Your task to perform on an android device: toggle sleep mode Image 0: 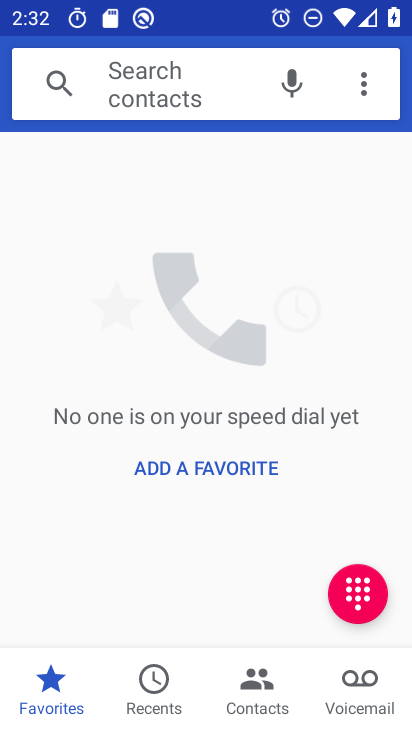
Step 0: press home button
Your task to perform on an android device: toggle sleep mode Image 1: 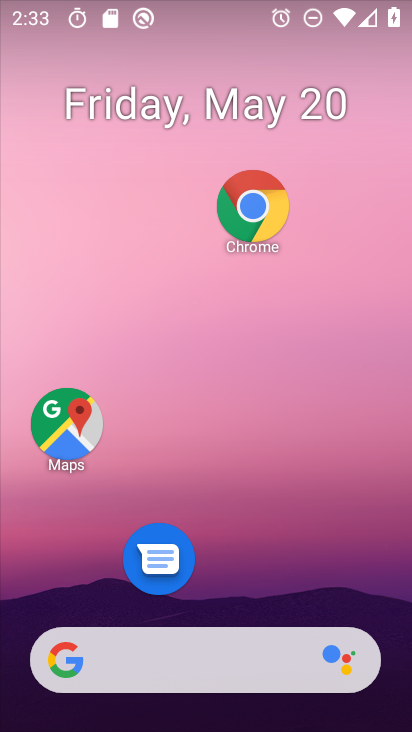
Step 1: drag from (259, 628) to (386, 507)
Your task to perform on an android device: toggle sleep mode Image 2: 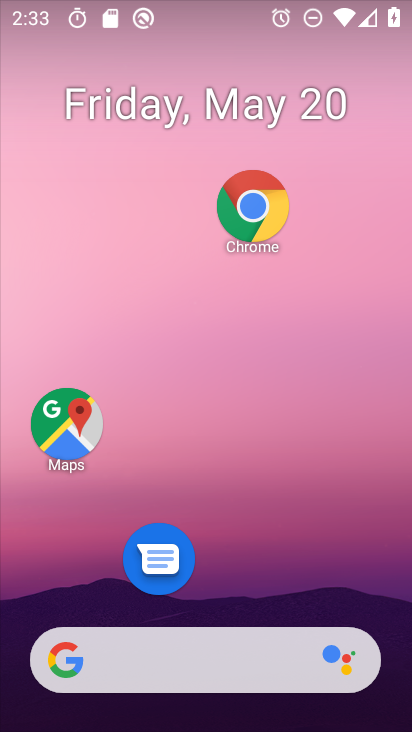
Step 2: drag from (201, 615) to (101, 19)
Your task to perform on an android device: toggle sleep mode Image 3: 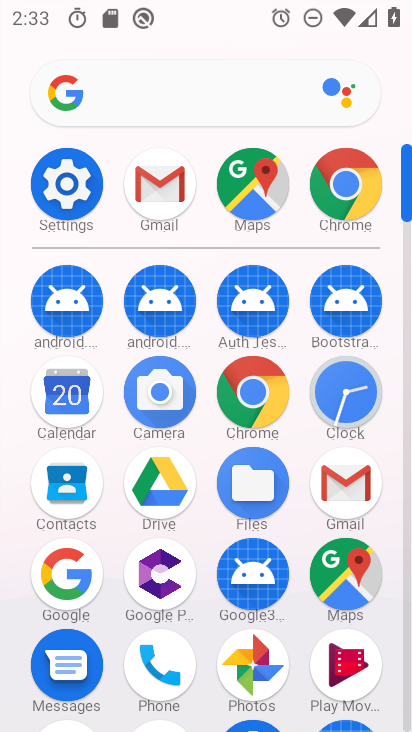
Step 3: click (55, 196)
Your task to perform on an android device: toggle sleep mode Image 4: 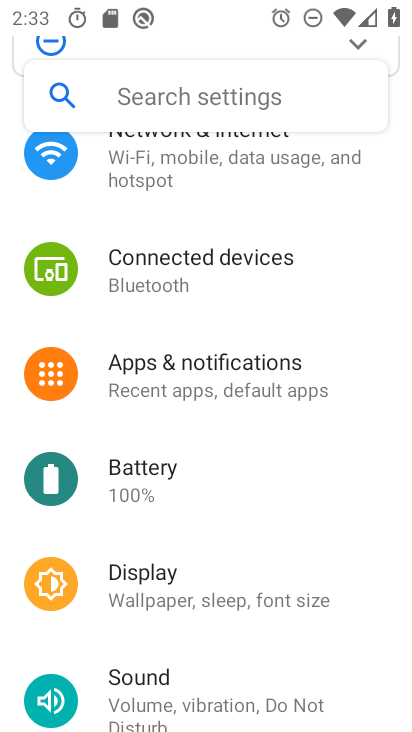
Step 4: click (175, 574)
Your task to perform on an android device: toggle sleep mode Image 5: 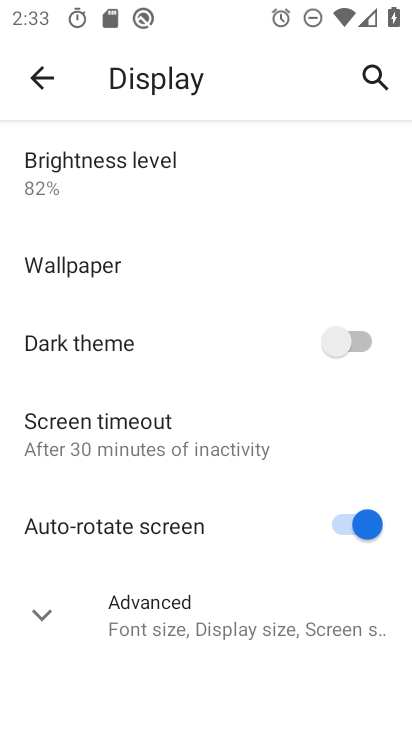
Step 5: task complete